Your task to perform on an android device: manage bookmarks in the chrome app Image 0: 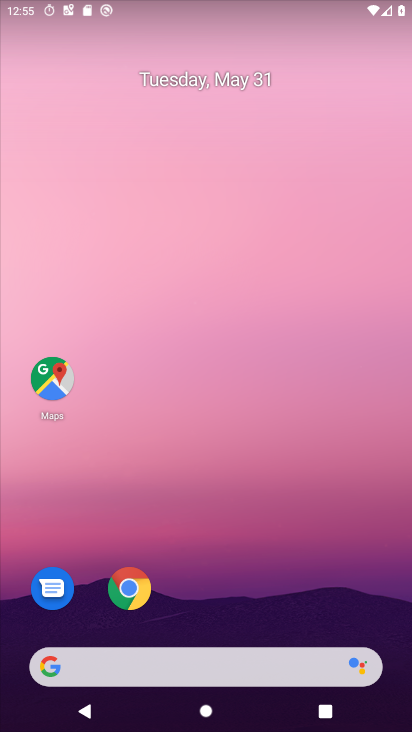
Step 0: drag from (314, 663) to (277, 69)
Your task to perform on an android device: manage bookmarks in the chrome app Image 1: 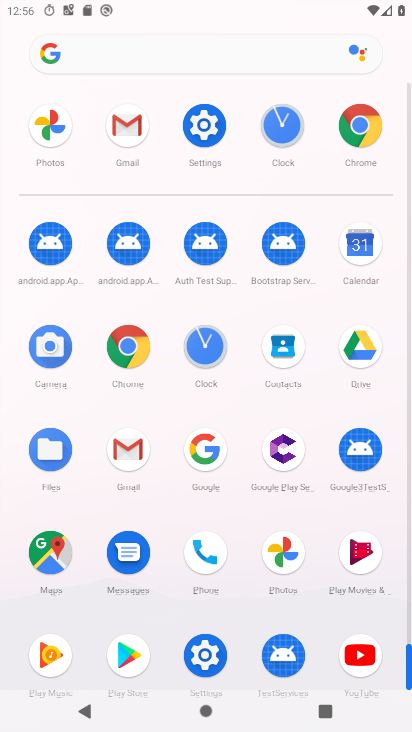
Step 1: click (138, 432)
Your task to perform on an android device: manage bookmarks in the chrome app Image 2: 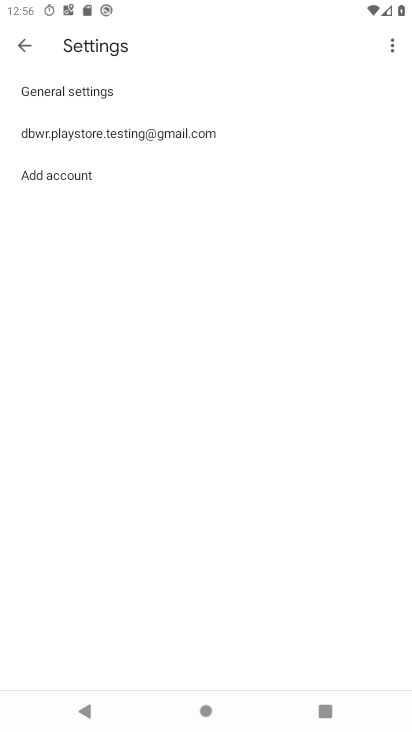
Step 2: press back button
Your task to perform on an android device: manage bookmarks in the chrome app Image 3: 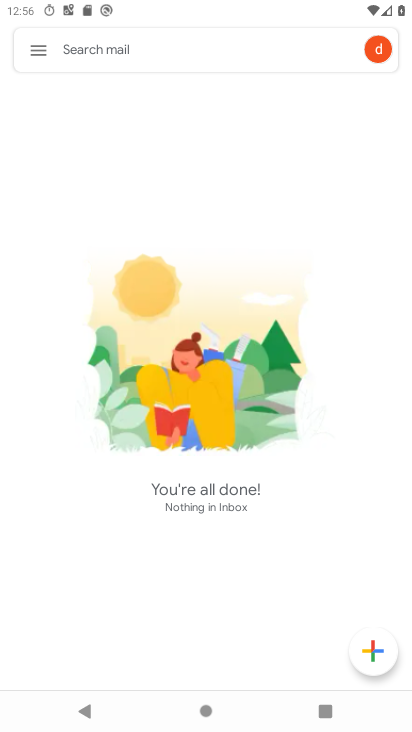
Step 3: press home button
Your task to perform on an android device: manage bookmarks in the chrome app Image 4: 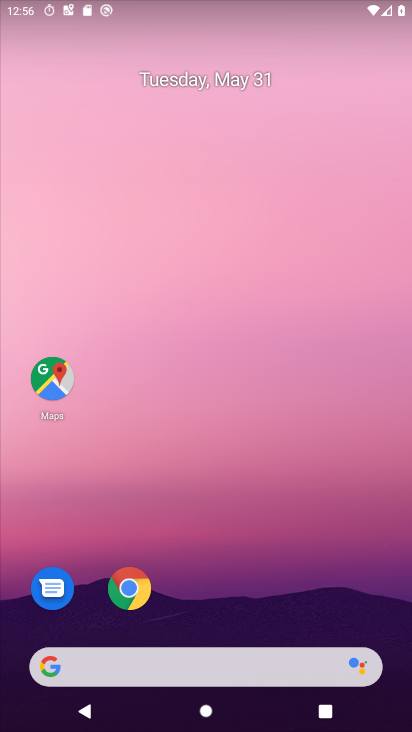
Step 4: drag from (247, 628) to (271, 104)
Your task to perform on an android device: manage bookmarks in the chrome app Image 5: 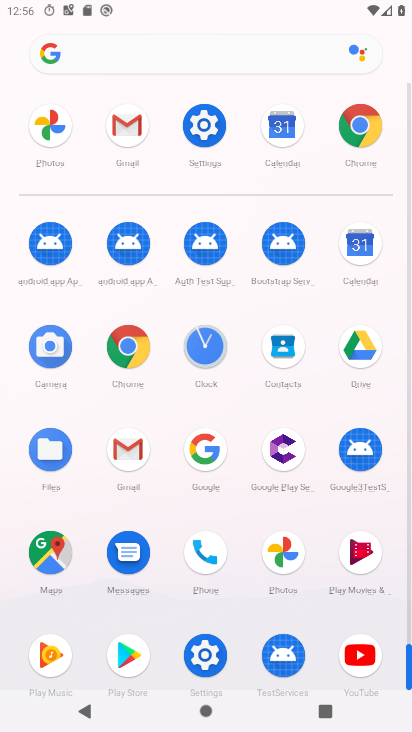
Step 5: click (130, 347)
Your task to perform on an android device: manage bookmarks in the chrome app Image 6: 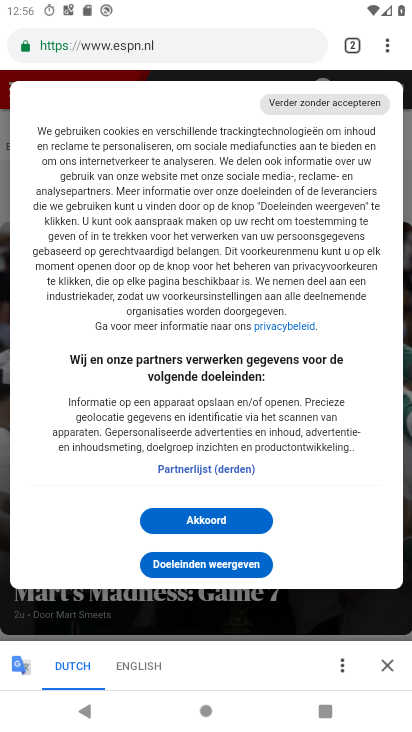
Step 6: task complete